Your task to perform on an android device: choose inbox layout in the gmail app Image 0: 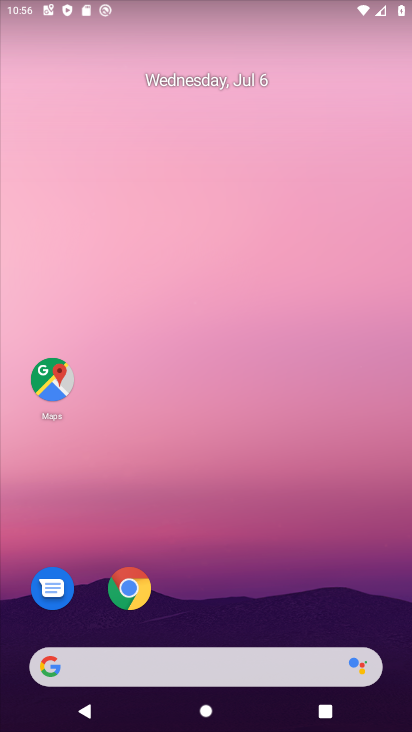
Step 0: drag from (259, 586) to (253, 297)
Your task to perform on an android device: choose inbox layout in the gmail app Image 1: 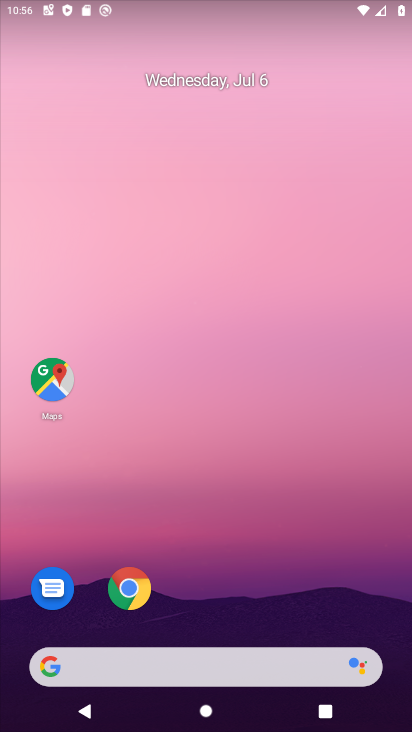
Step 1: drag from (271, 644) to (230, 288)
Your task to perform on an android device: choose inbox layout in the gmail app Image 2: 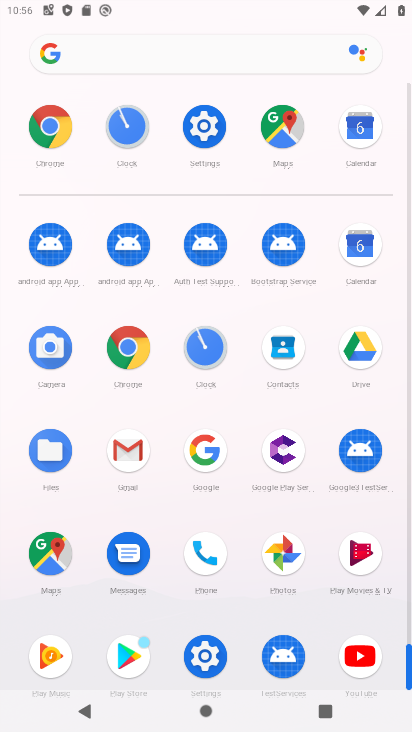
Step 2: click (126, 452)
Your task to perform on an android device: choose inbox layout in the gmail app Image 3: 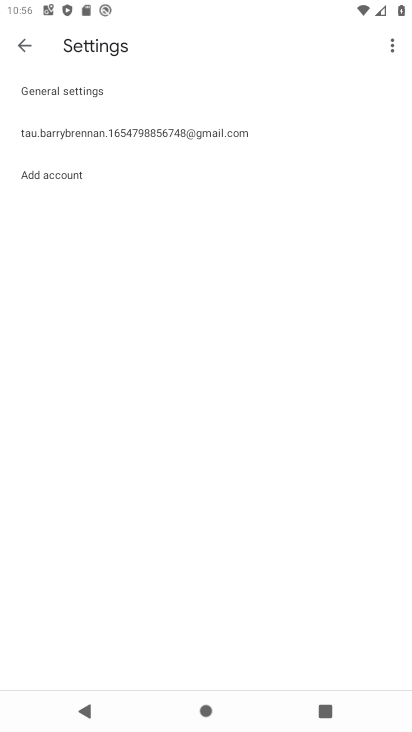
Step 3: press home button
Your task to perform on an android device: choose inbox layout in the gmail app Image 4: 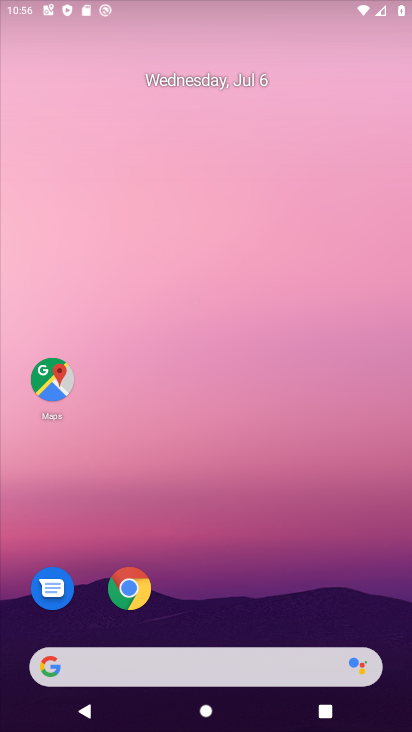
Step 4: drag from (239, 559) to (237, 124)
Your task to perform on an android device: choose inbox layout in the gmail app Image 5: 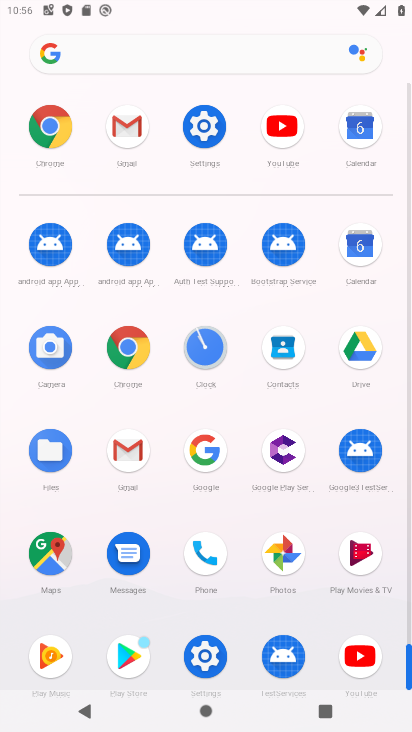
Step 5: click (119, 122)
Your task to perform on an android device: choose inbox layout in the gmail app Image 6: 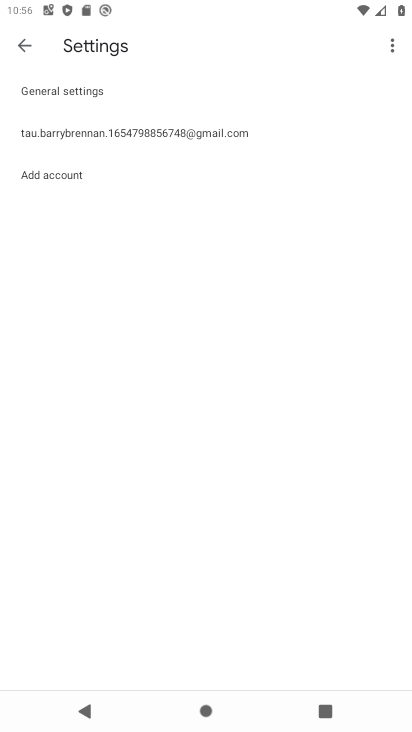
Step 6: click (10, 42)
Your task to perform on an android device: choose inbox layout in the gmail app Image 7: 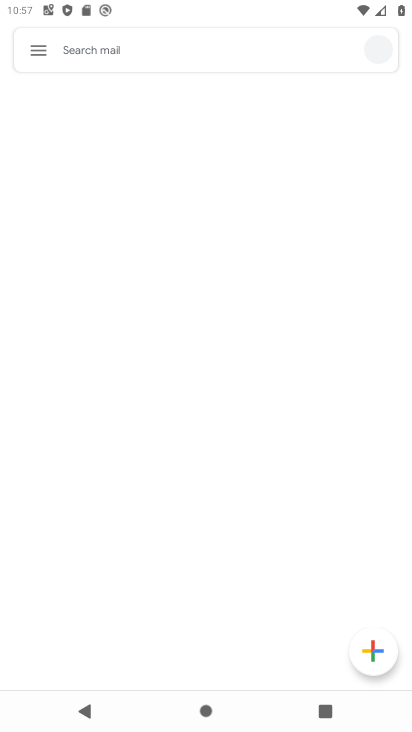
Step 7: click (39, 48)
Your task to perform on an android device: choose inbox layout in the gmail app Image 8: 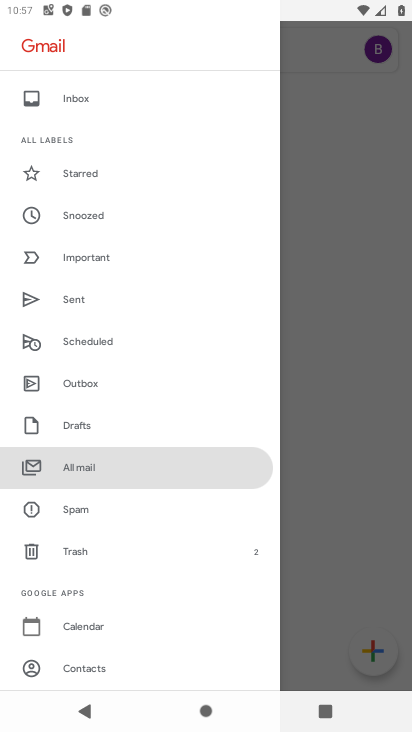
Step 8: click (61, 97)
Your task to perform on an android device: choose inbox layout in the gmail app Image 9: 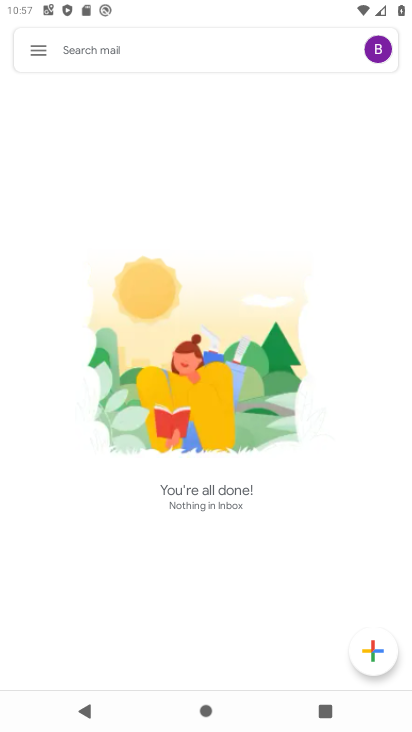
Step 9: task complete